Your task to perform on an android device: Search for sushi restaurants on Maps Image 0: 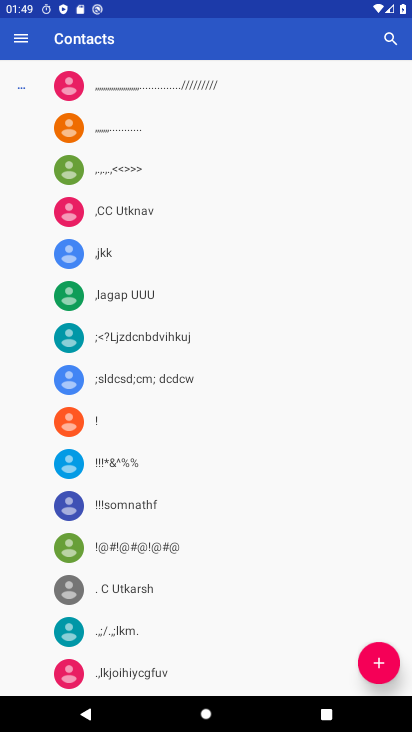
Step 0: press home button
Your task to perform on an android device: Search for sushi restaurants on Maps Image 1: 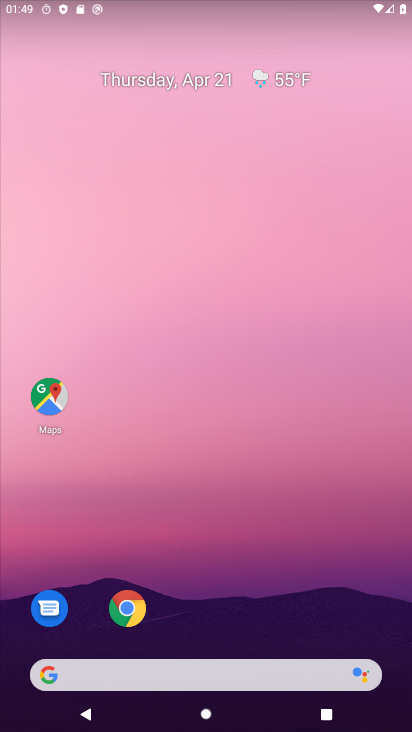
Step 1: click (52, 393)
Your task to perform on an android device: Search for sushi restaurants on Maps Image 2: 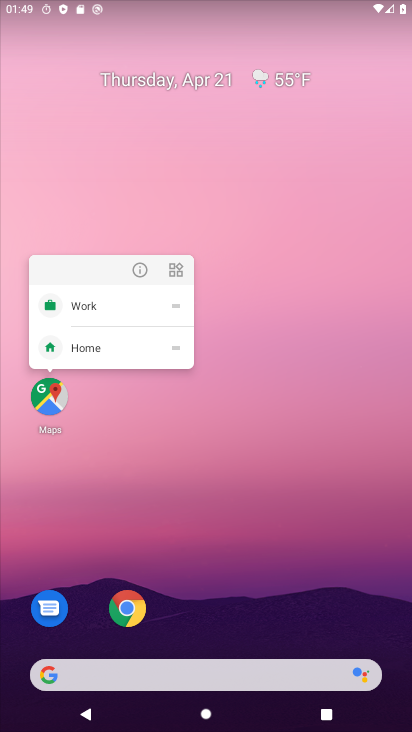
Step 2: click (55, 390)
Your task to perform on an android device: Search for sushi restaurants on Maps Image 3: 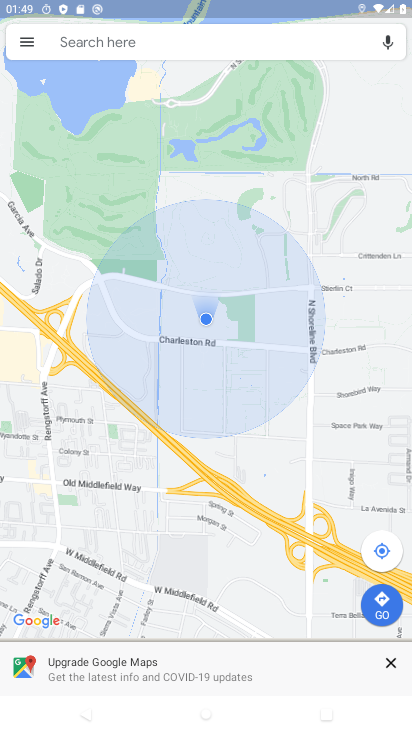
Step 3: click (124, 44)
Your task to perform on an android device: Search for sushi restaurants on Maps Image 4: 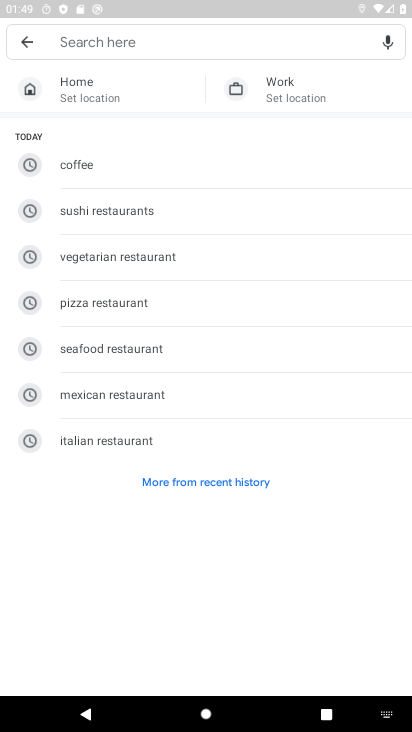
Step 4: click (101, 211)
Your task to perform on an android device: Search for sushi restaurants on Maps Image 5: 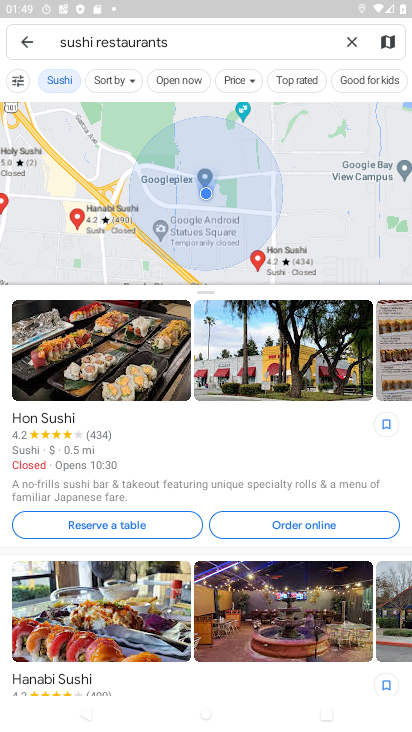
Step 5: task complete